Your task to perform on an android device: all mails in gmail Image 0: 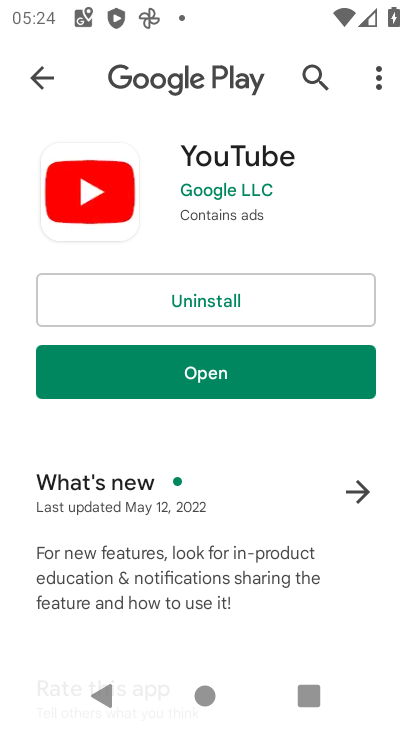
Step 0: press home button
Your task to perform on an android device: all mails in gmail Image 1: 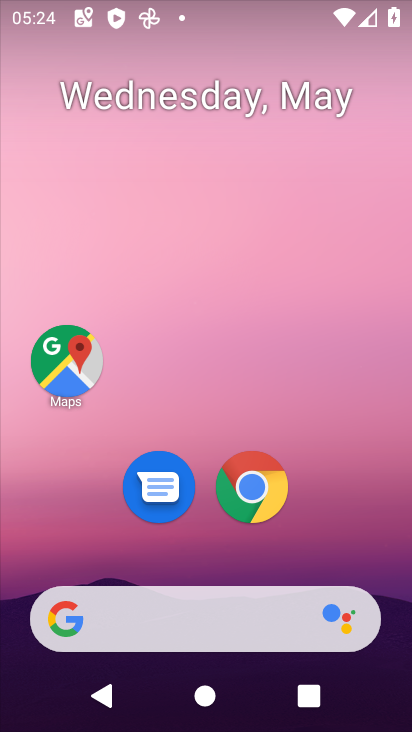
Step 1: drag from (391, 454) to (327, 159)
Your task to perform on an android device: all mails in gmail Image 2: 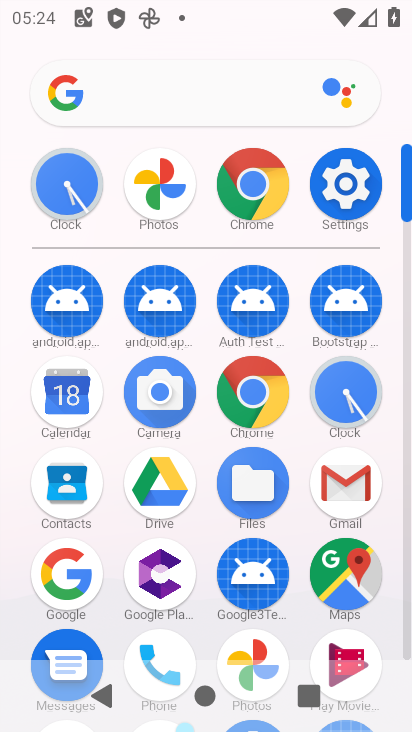
Step 2: click (354, 494)
Your task to perform on an android device: all mails in gmail Image 3: 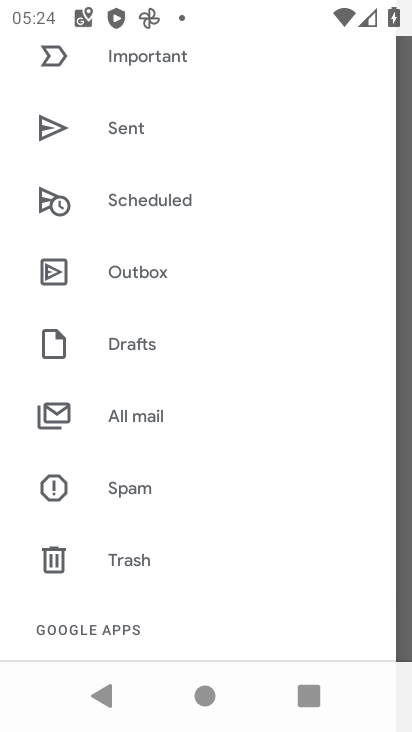
Step 3: click (163, 425)
Your task to perform on an android device: all mails in gmail Image 4: 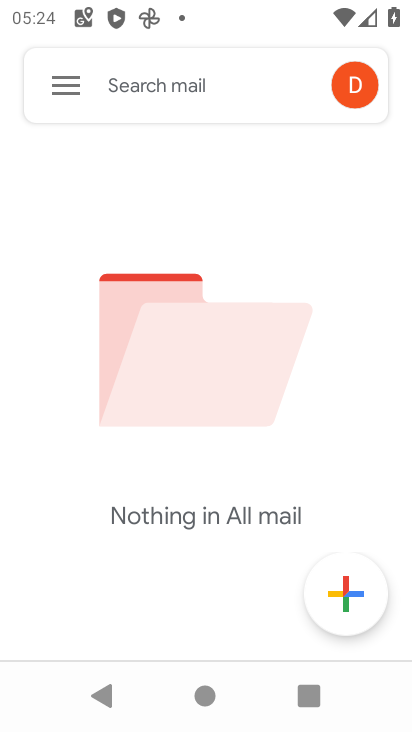
Step 4: task complete